Your task to perform on an android device: visit the assistant section in the google photos Image 0: 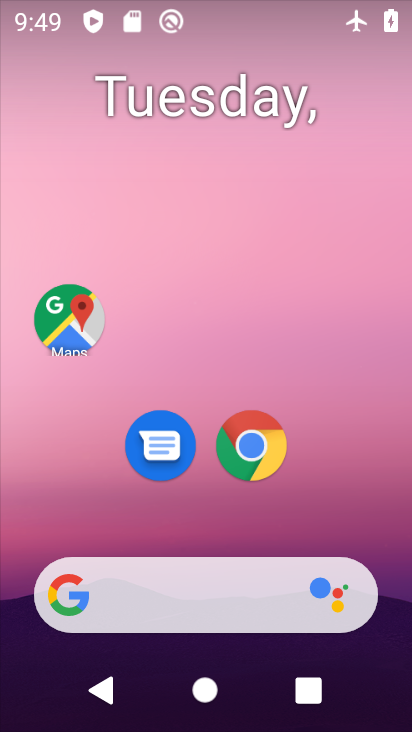
Step 0: drag from (402, 588) to (269, 105)
Your task to perform on an android device: visit the assistant section in the google photos Image 1: 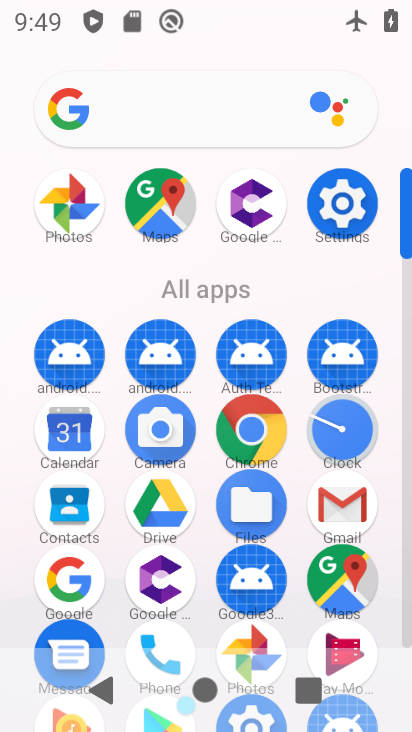
Step 1: click (93, 206)
Your task to perform on an android device: visit the assistant section in the google photos Image 2: 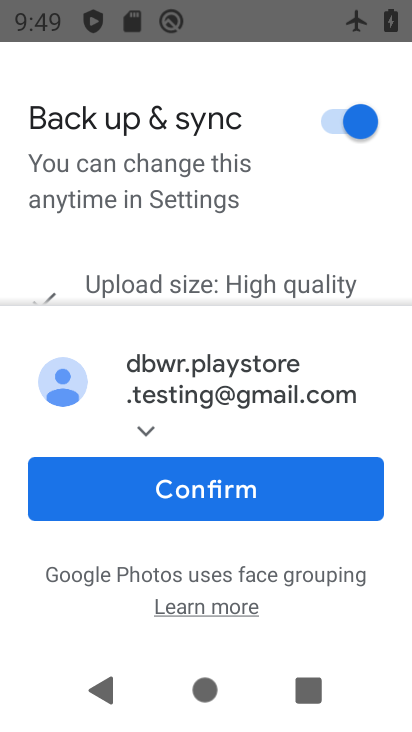
Step 2: click (271, 491)
Your task to perform on an android device: visit the assistant section in the google photos Image 3: 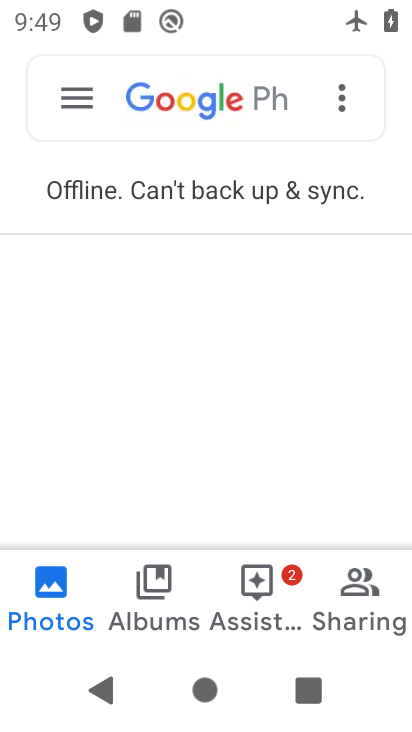
Step 3: click (267, 587)
Your task to perform on an android device: visit the assistant section in the google photos Image 4: 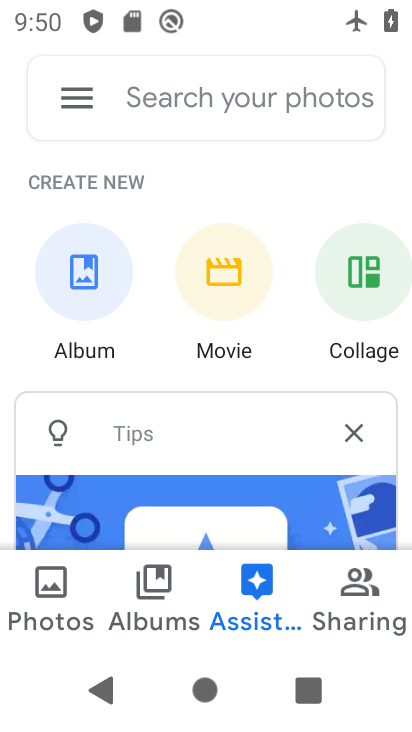
Step 4: task complete